Your task to perform on an android device: Open Google Chrome and click the shortcut for Amazon.com Image 0: 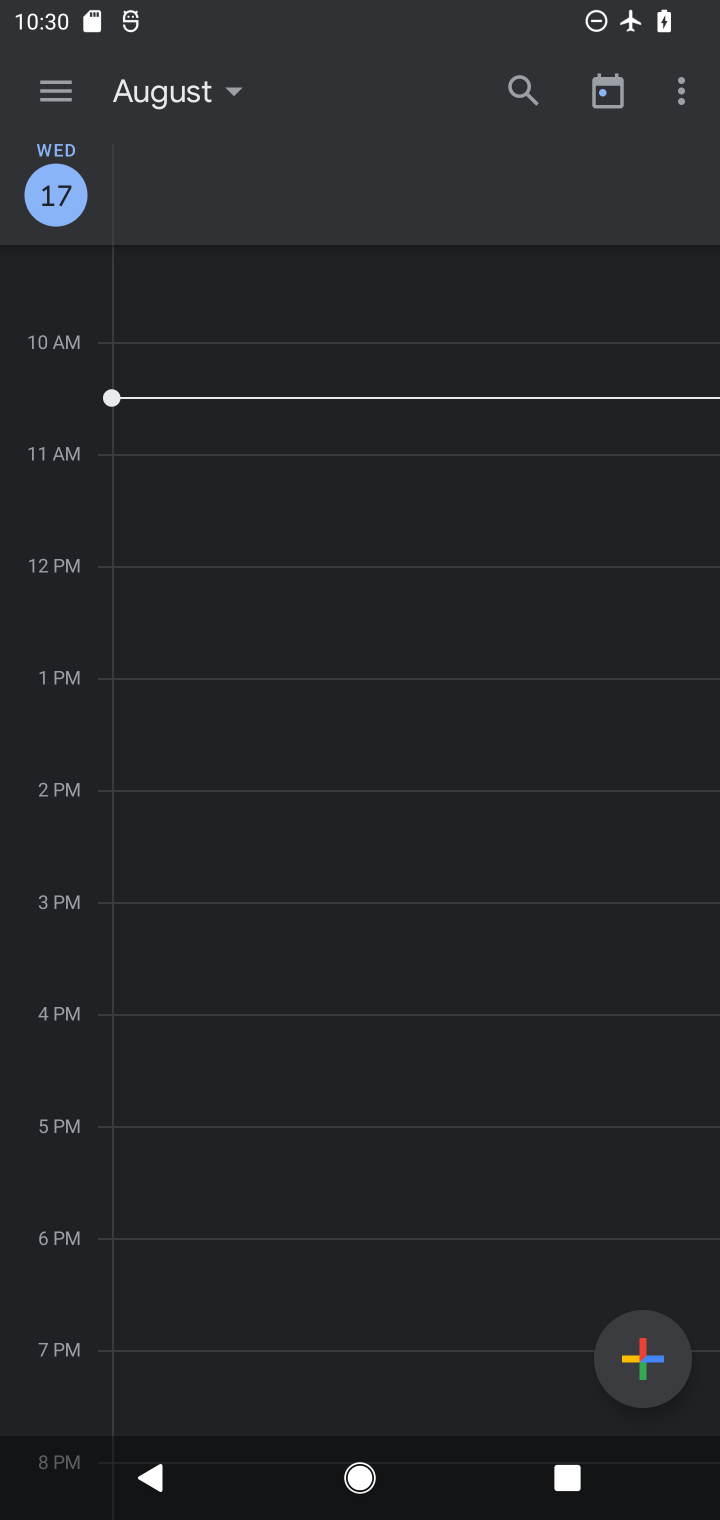
Step 0: task complete